Your task to perform on an android device: turn off airplane mode Image 0: 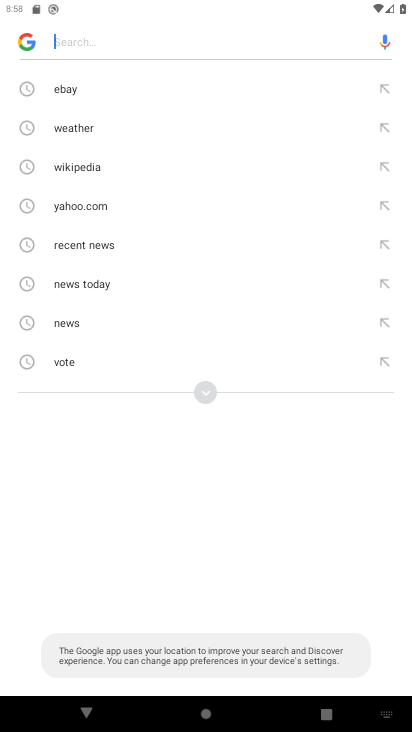
Step 0: press home button
Your task to perform on an android device: turn off airplane mode Image 1: 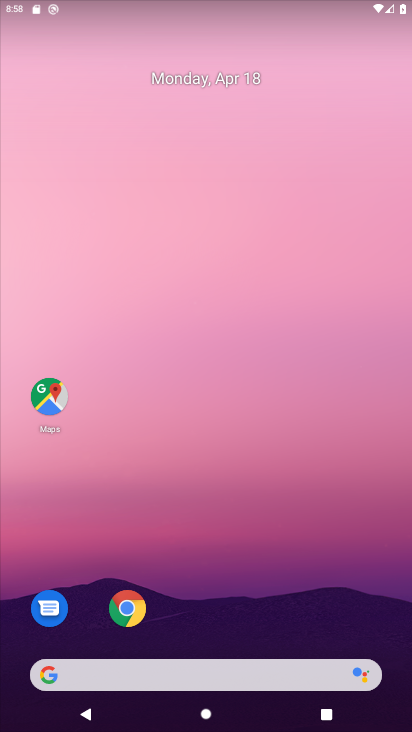
Step 1: drag from (310, 473) to (303, 121)
Your task to perform on an android device: turn off airplane mode Image 2: 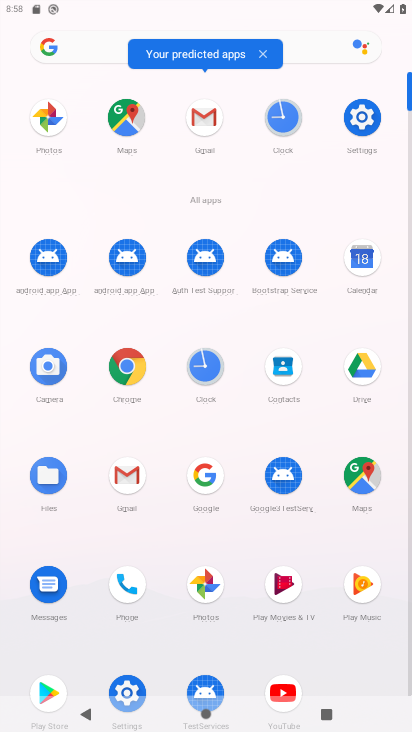
Step 2: click (353, 123)
Your task to perform on an android device: turn off airplane mode Image 3: 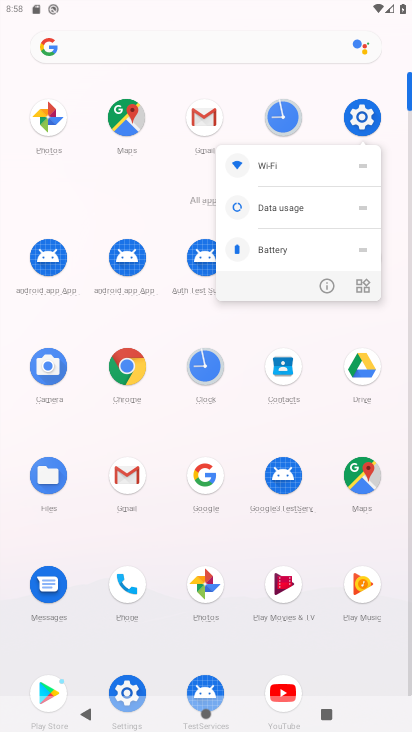
Step 3: click (353, 123)
Your task to perform on an android device: turn off airplane mode Image 4: 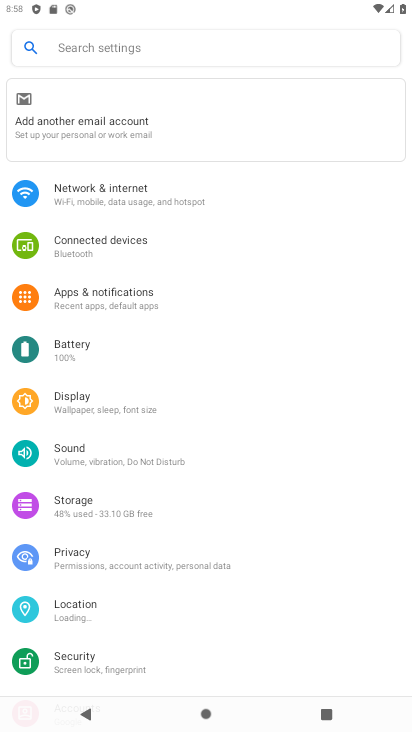
Step 4: click (111, 198)
Your task to perform on an android device: turn off airplane mode Image 5: 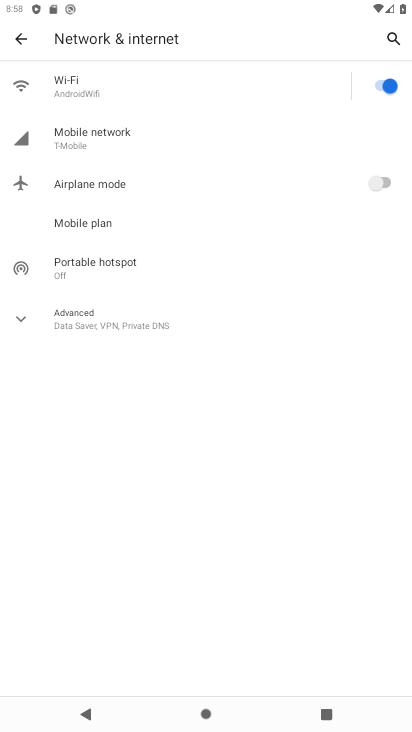
Step 5: task complete